Your task to perform on an android device: turn pop-ups on in chrome Image 0: 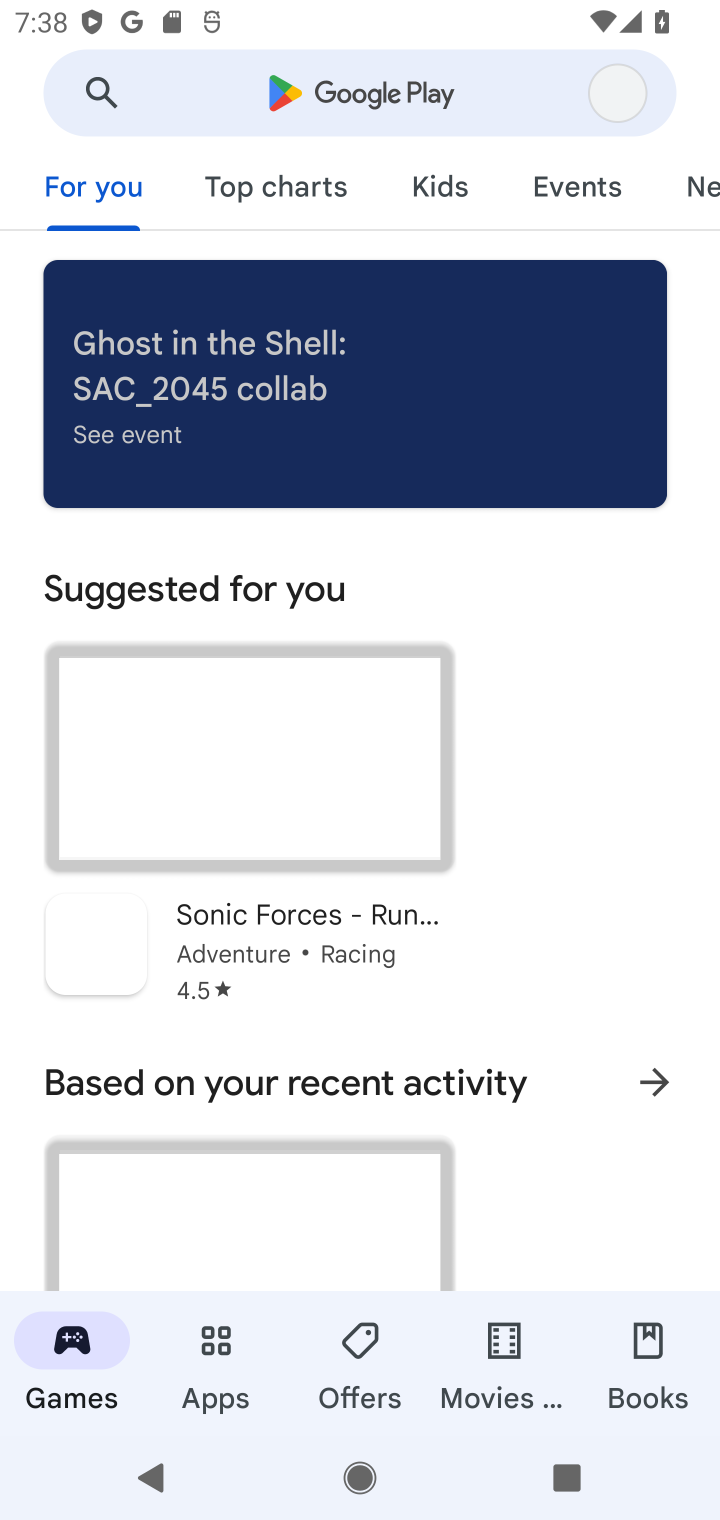
Step 0: press home button
Your task to perform on an android device: turn pop-ups on in chrome Image 1: 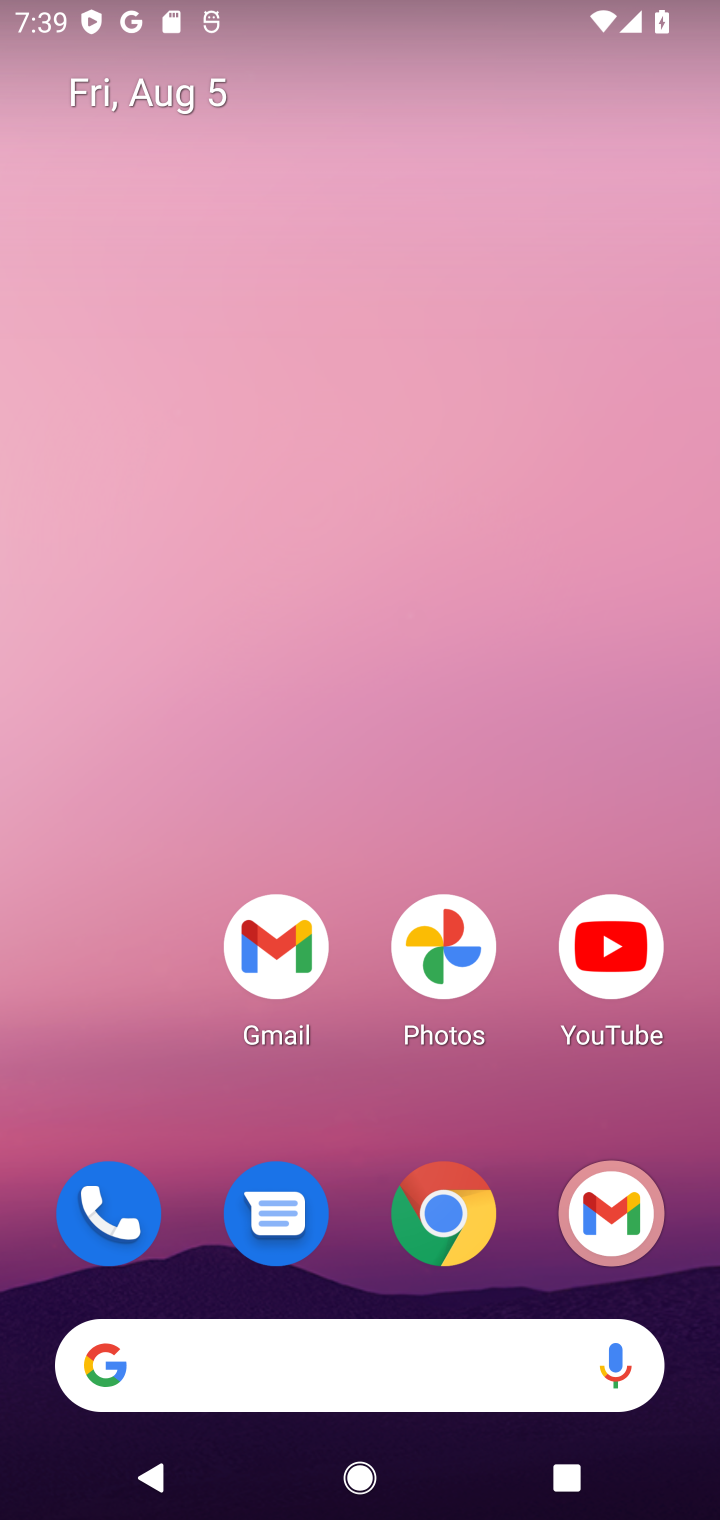
Step 1: drag from (353, 943) to (390, 326)
Your task to perform on an android device: turn pop-ups on in chrome Image 2: 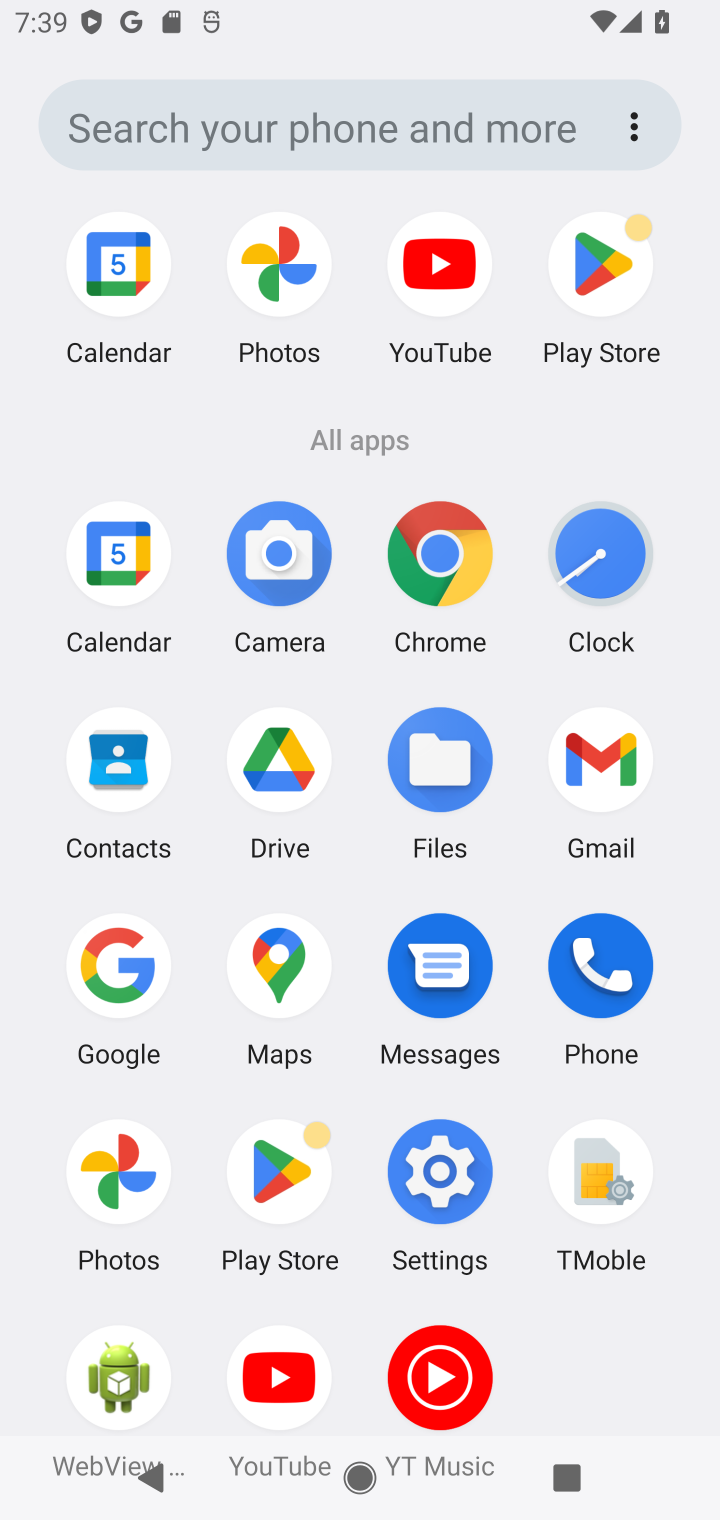
Step 2: click (418, 556)
Your task to perform on an android device: turn pop-ups on in chrome Image 3: 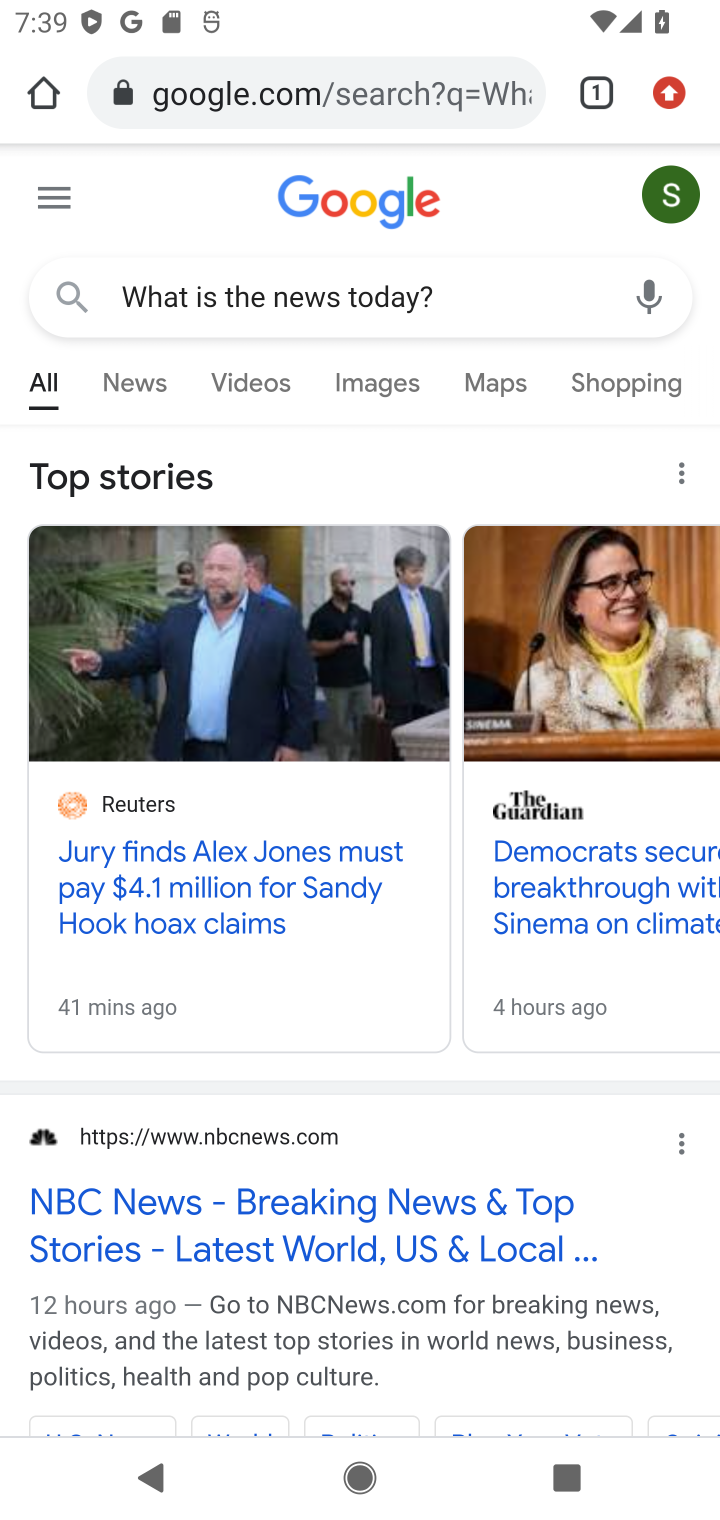
Step 3: click (679, 78)
Your task to perform on an android device: turn pop-ups on in chrome Image 4: 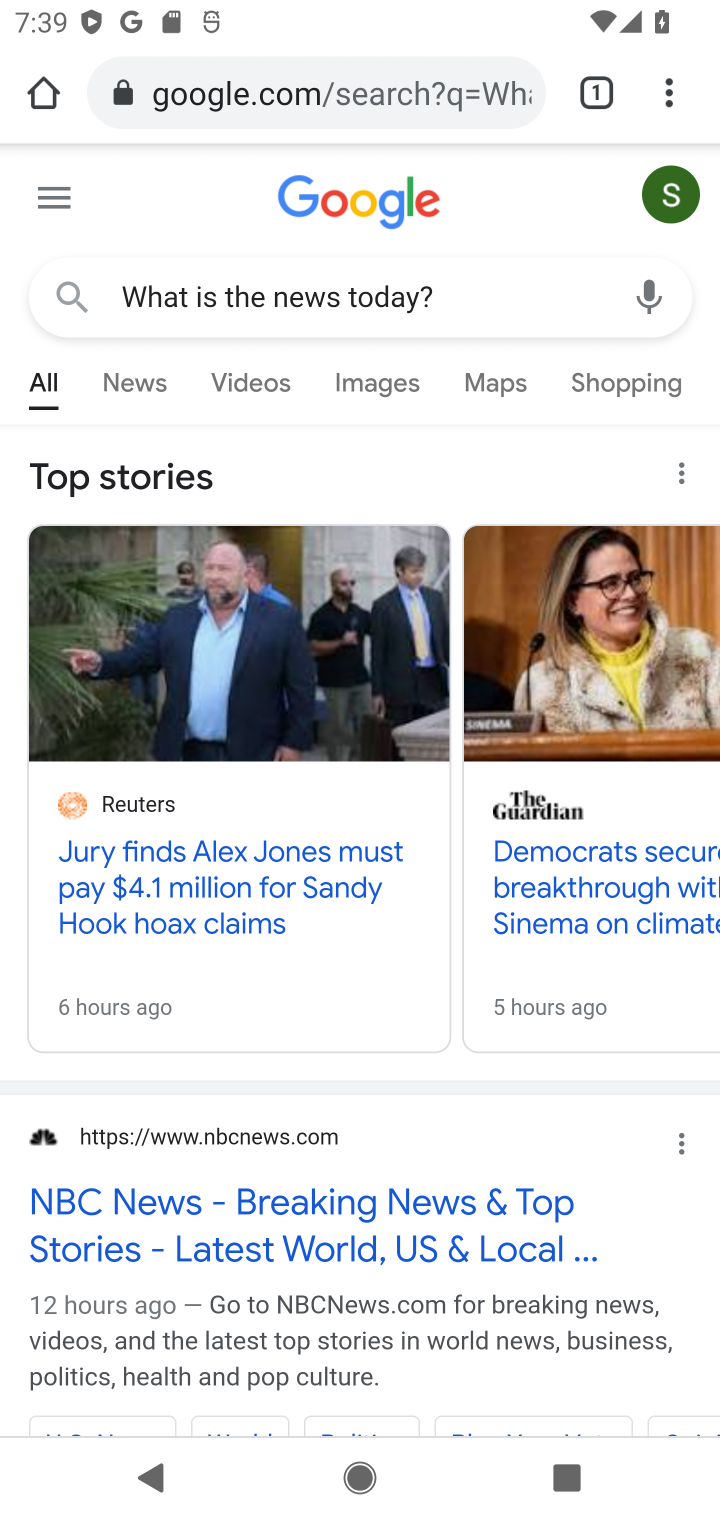
Step 4: click (689, 81)
Your task to perform on an android device: turn pop-ups on in chrome Image 5: 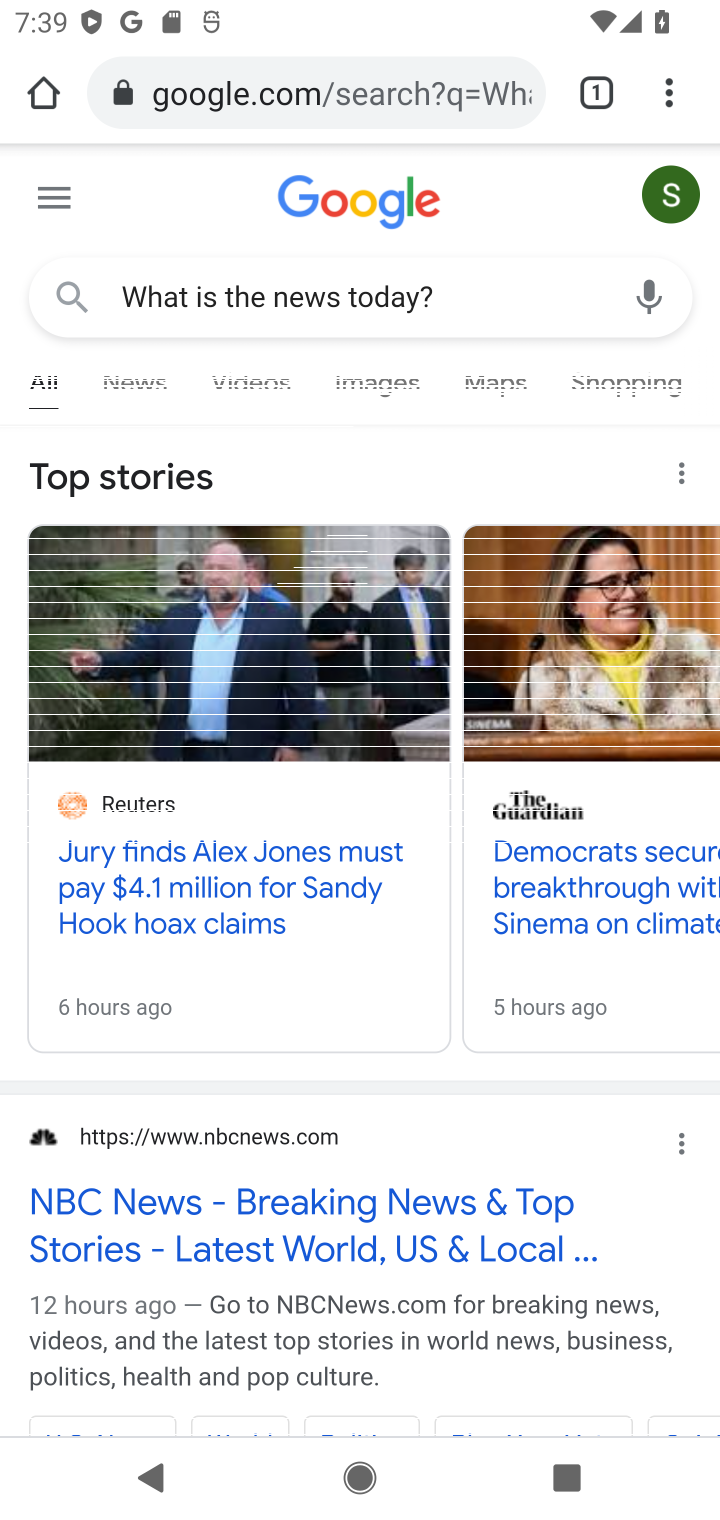
Step 5: click (662, 78)
Your task to perform on an android device: turn pop-ups on in chrome Image 6: 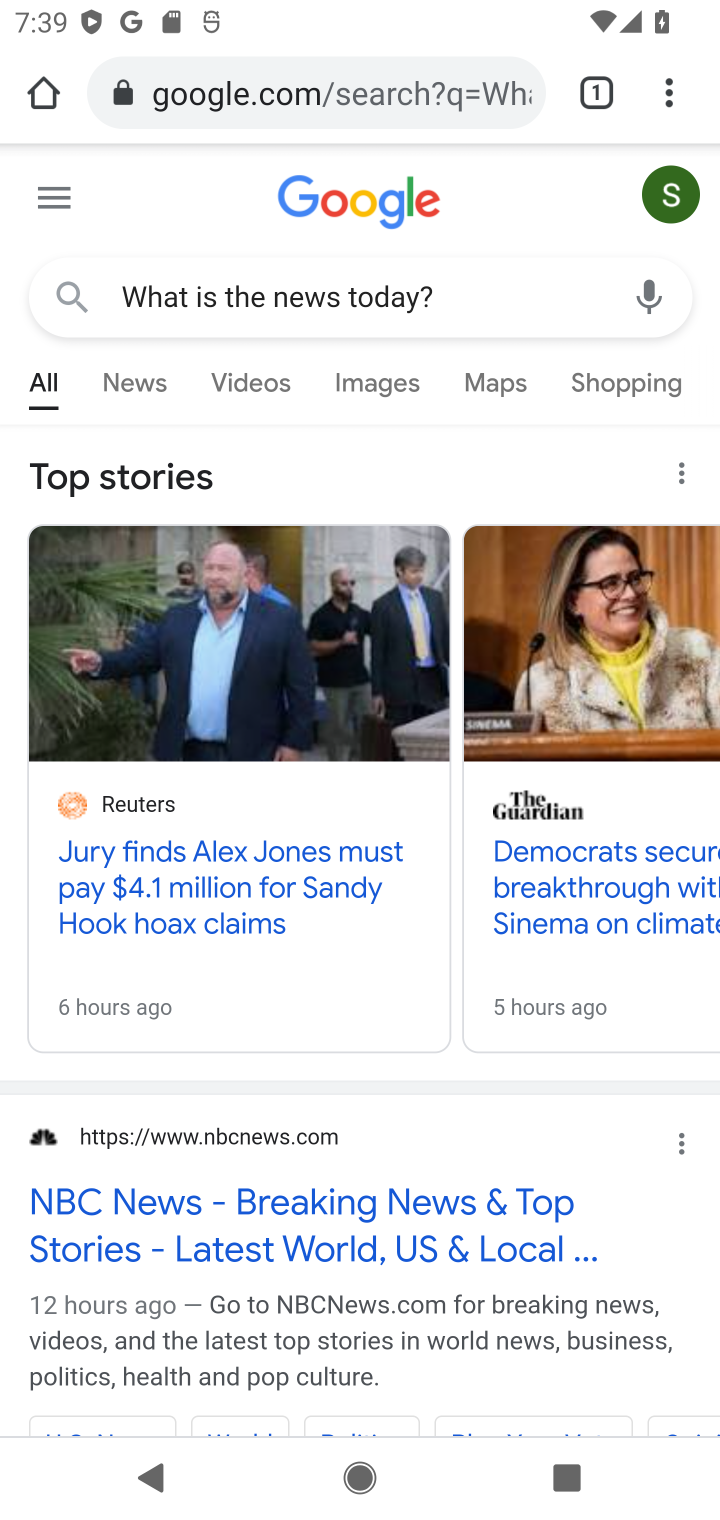
Step 6: click (673, 96)
Your task to perform on an android device: turn pop-ups on in chrome Image 7: 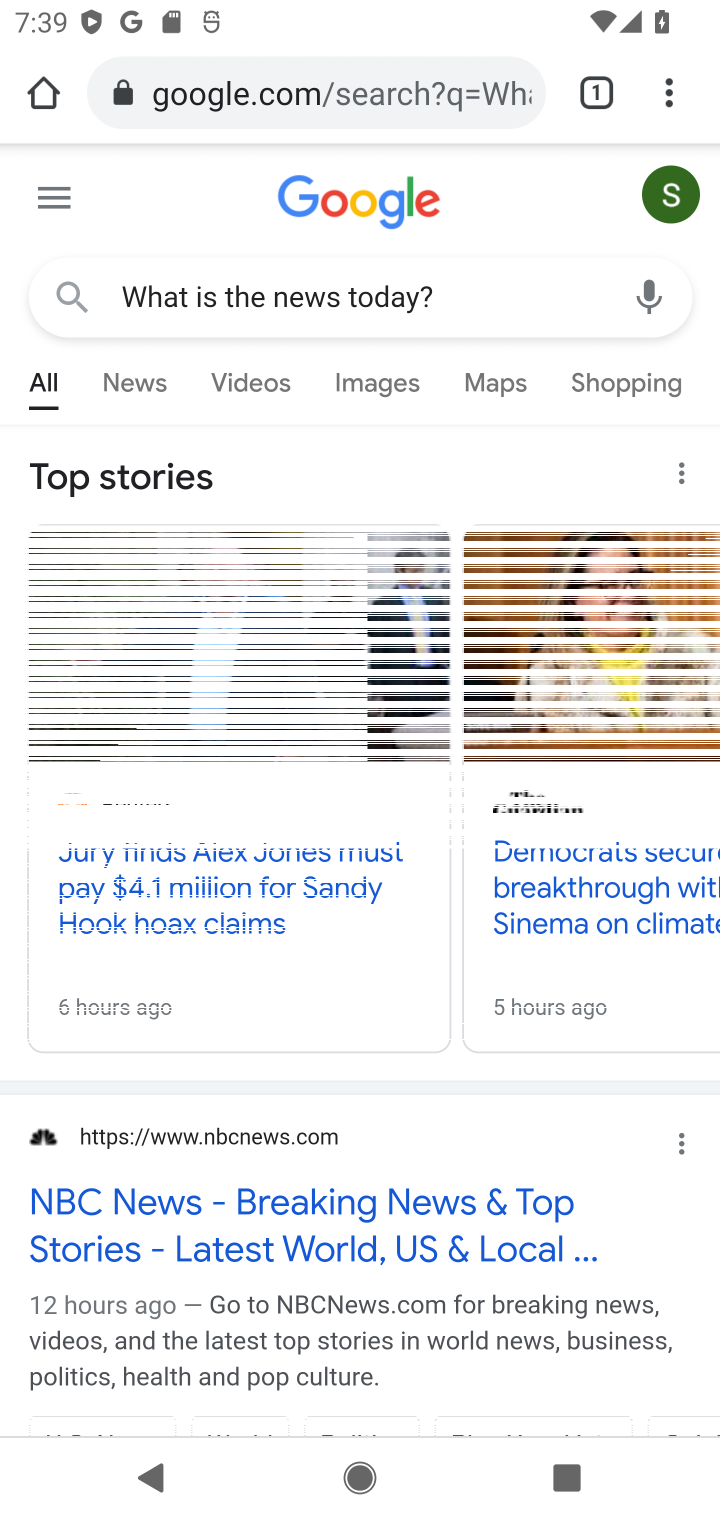
Step 7: click (702, 80)
Your task to perform on an android device: turn pop-ups on in chrome Image 8: 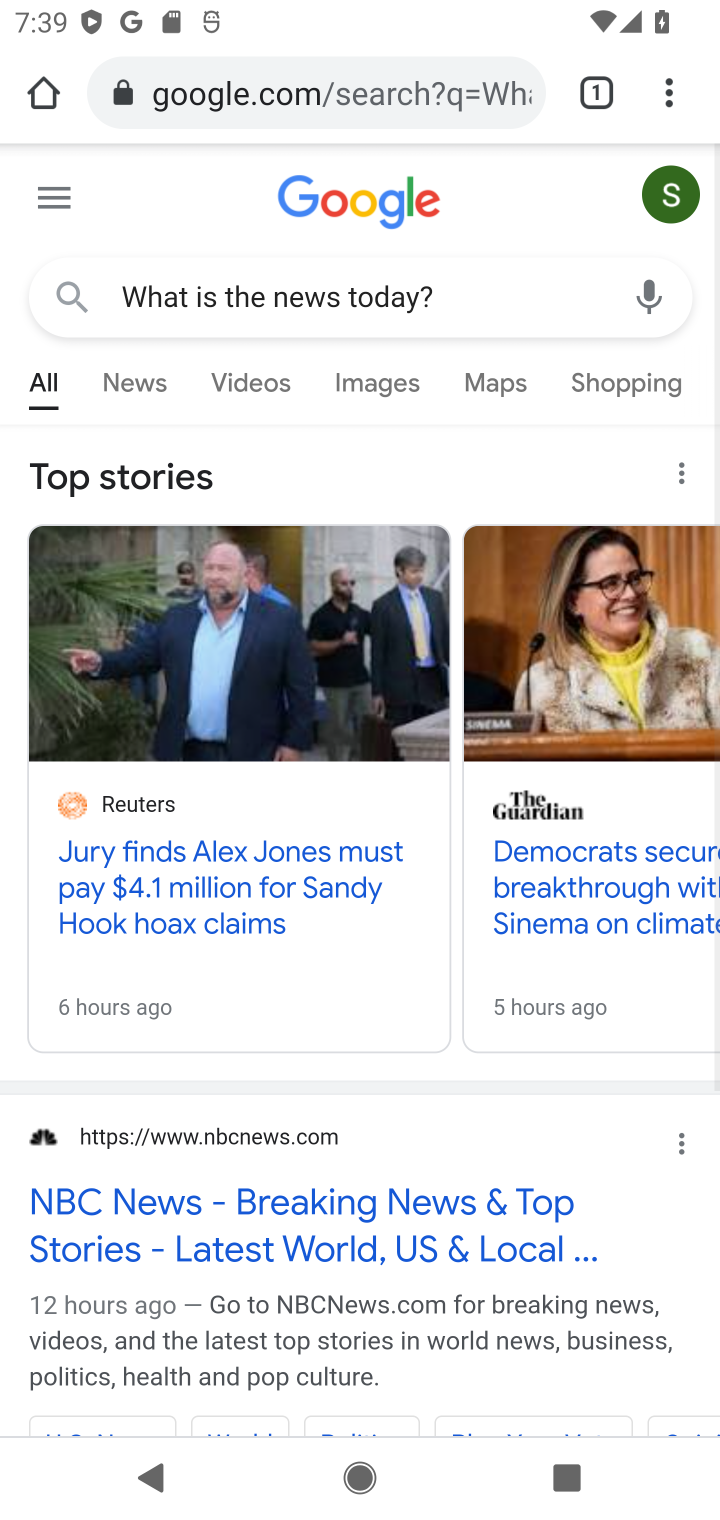
Step 8: click (694, 84)
Your task to perform on an android device: turn pop-ups on in chrome Image 9: 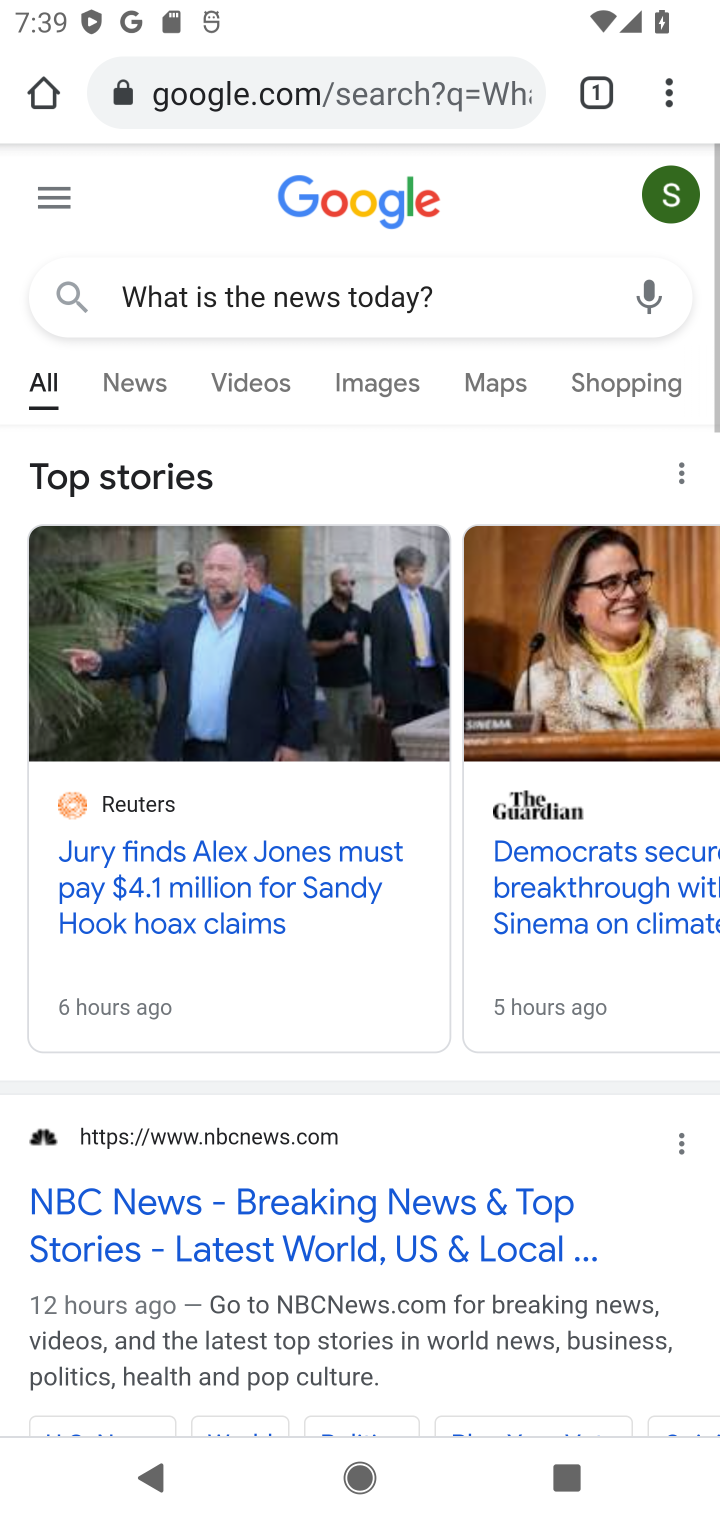
Step 9: click (679, 84)
Your task to perform on an android device: turn pop-ups on in chrome Image 10: 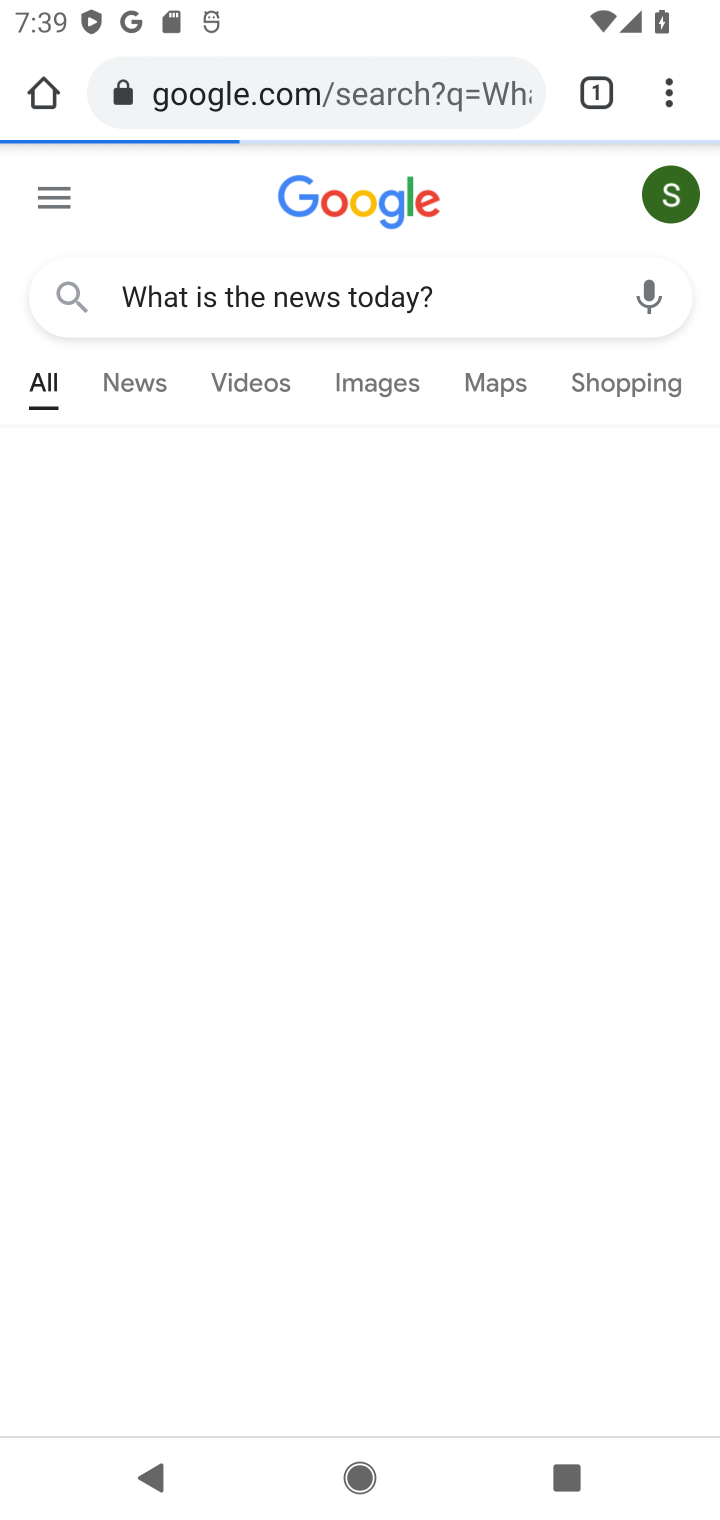
Step 10: click (632, 83)
Your task to perform on an android device: turn pop-ups on in chrome Image 11: 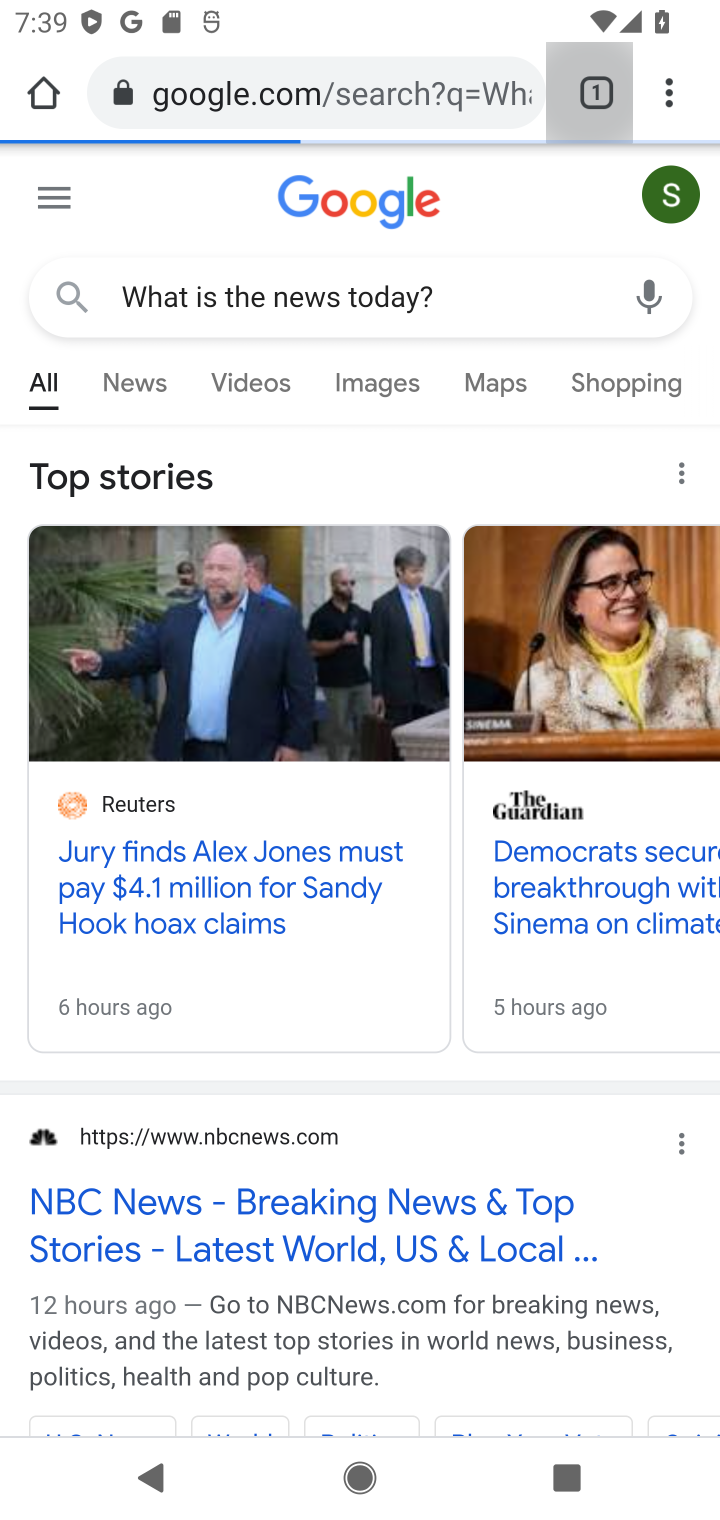
Step 11: click (653, 76)
Your task to perform on an android device: turn pop-ups on in chrome Image 12: 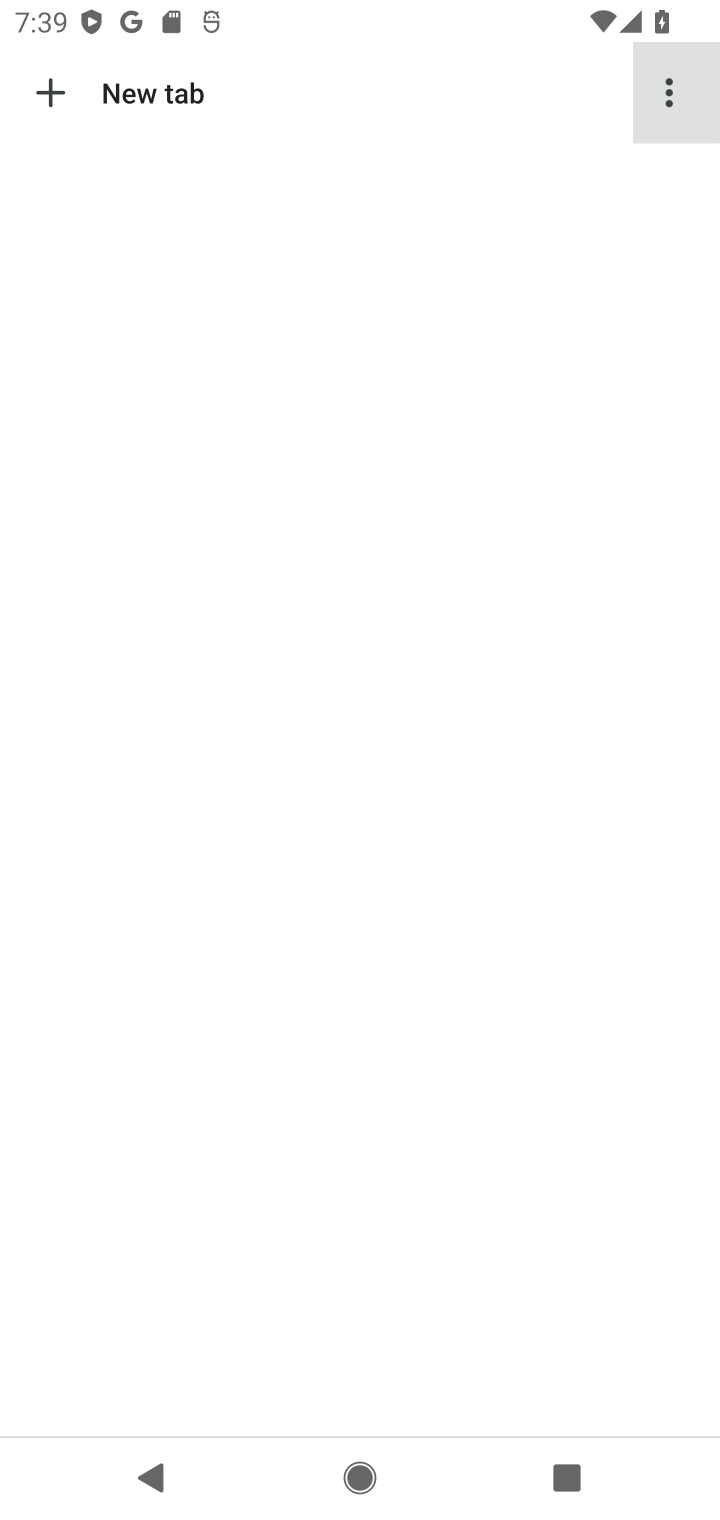
Step 12: click (664, 104)
Your task to perform on an android device: turn pop-ups on in chrome Image 13: 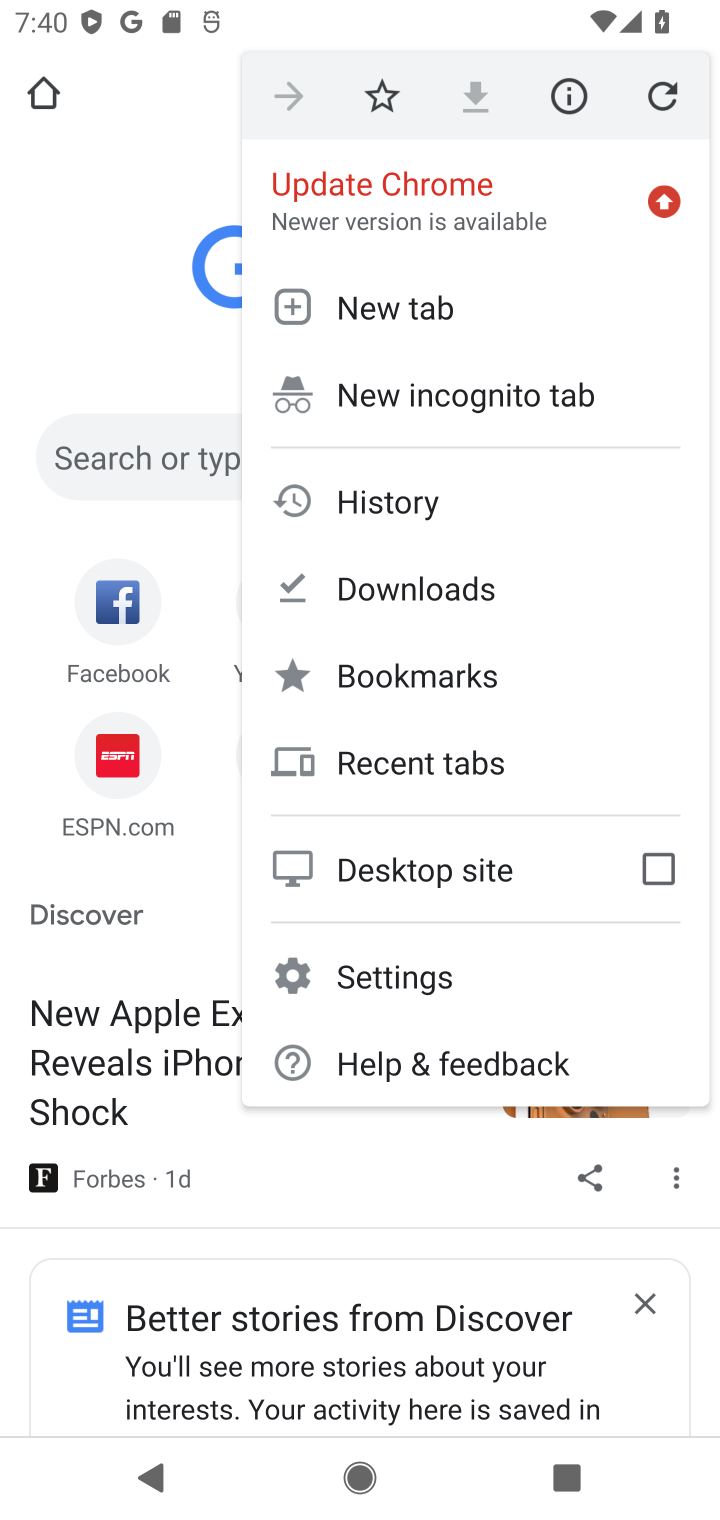
Step 13: click (415, 948)
Your task to perform on an android device: turn pop-ups on in chrome Image 14: 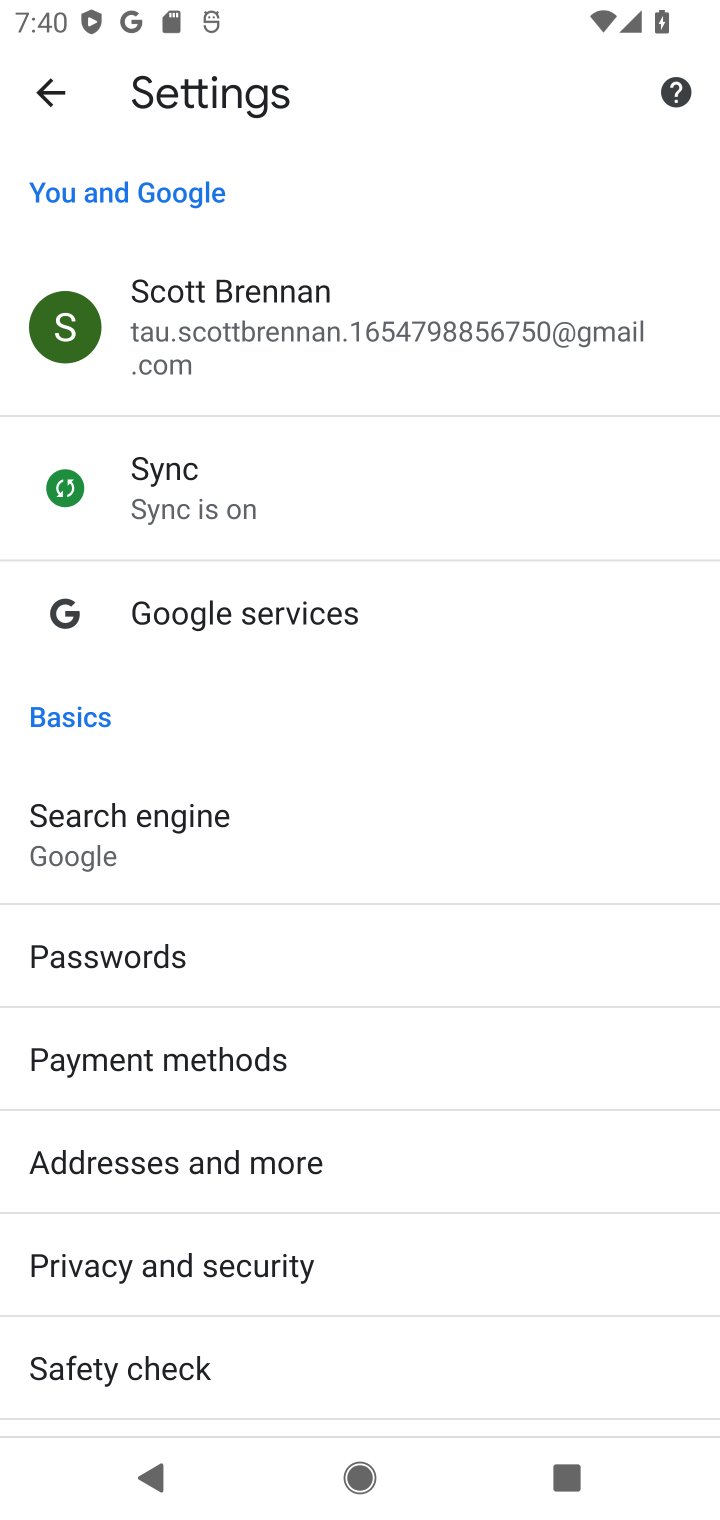
Step 14: drag from (414, 1239) to (491, 263)
Your task to perform on an android device: turn pop-ups on in chrome Image 15: 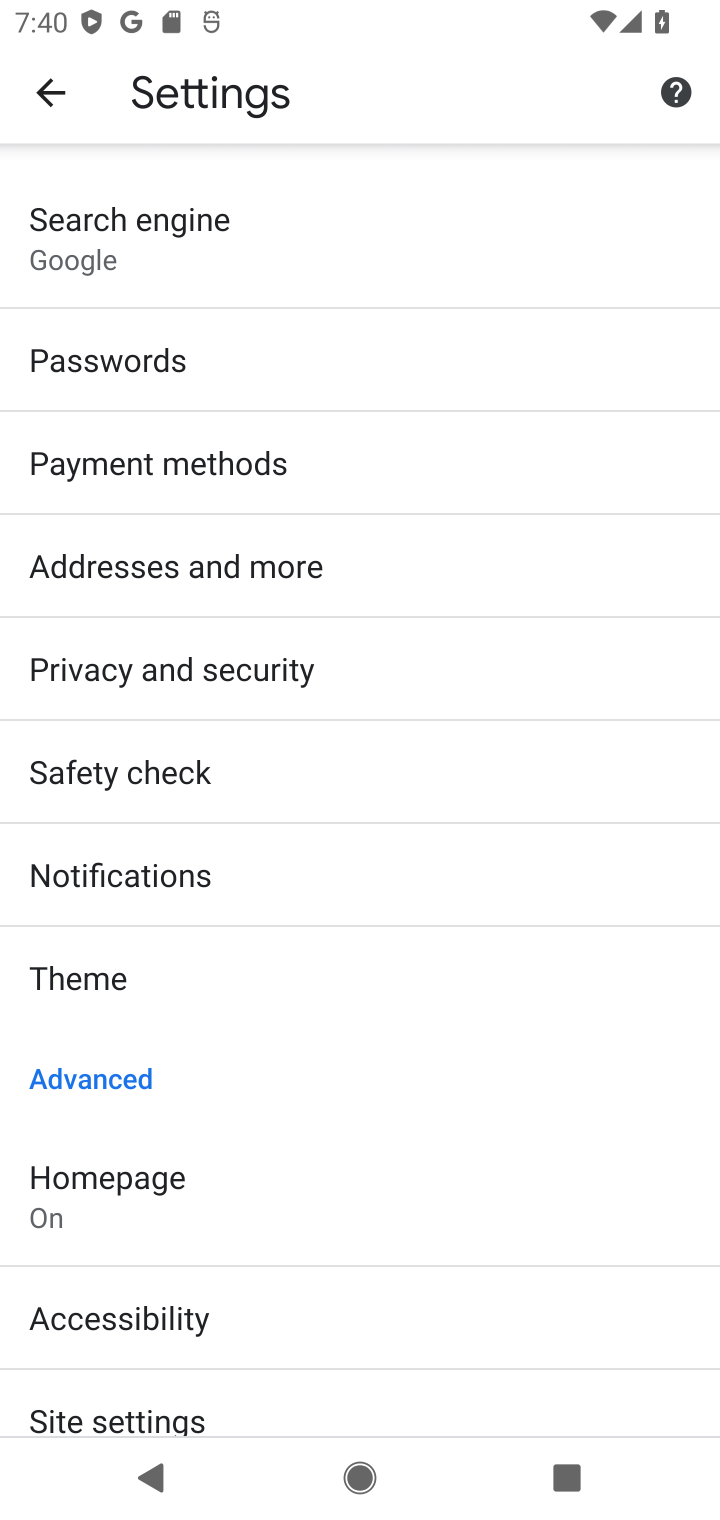
Step 15: drag from (321, 1361) to (394, 439)
Your task to perform on an android device: turn pop-ups on in chrome Image 16: 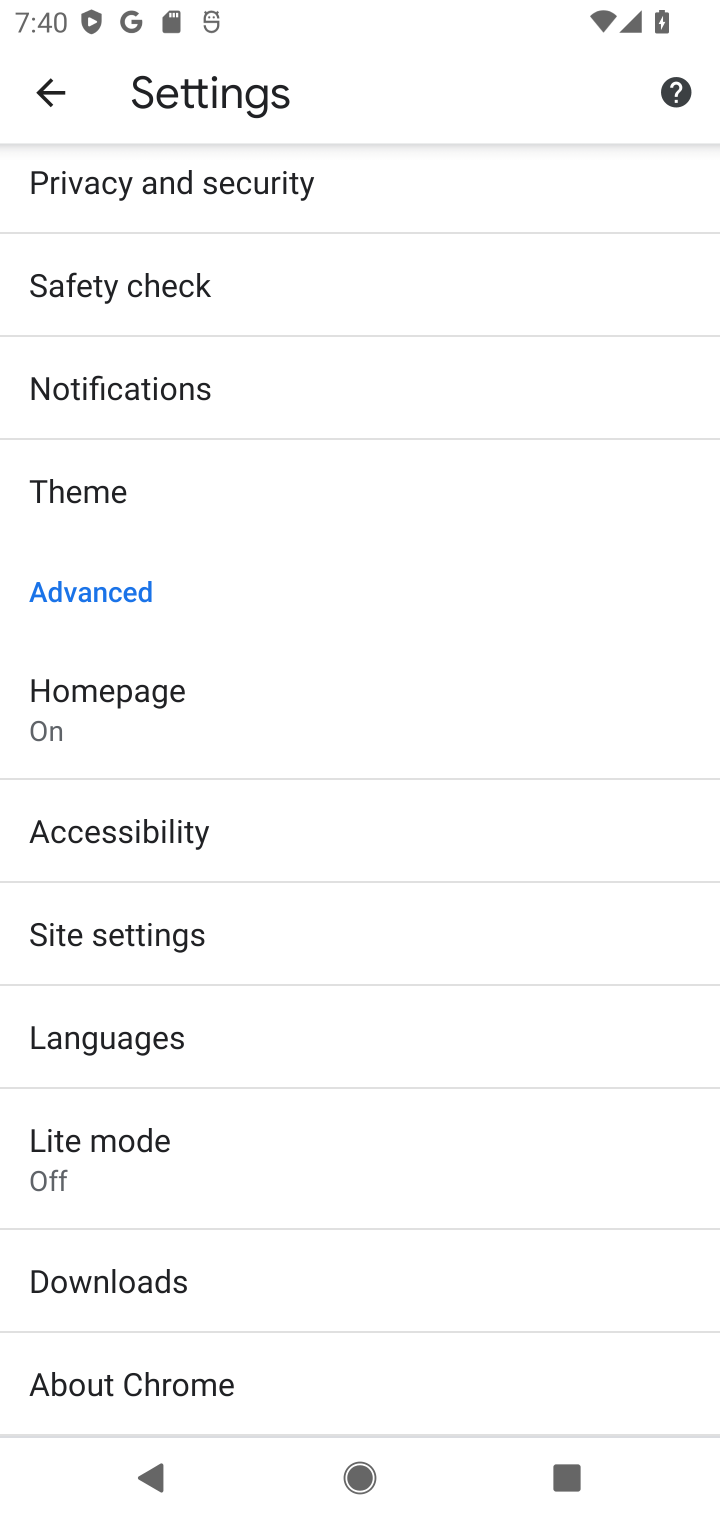
Step 16: click (216, 923)
Your task to perform on an android device: turn pop-ups on in chrome Image 17: 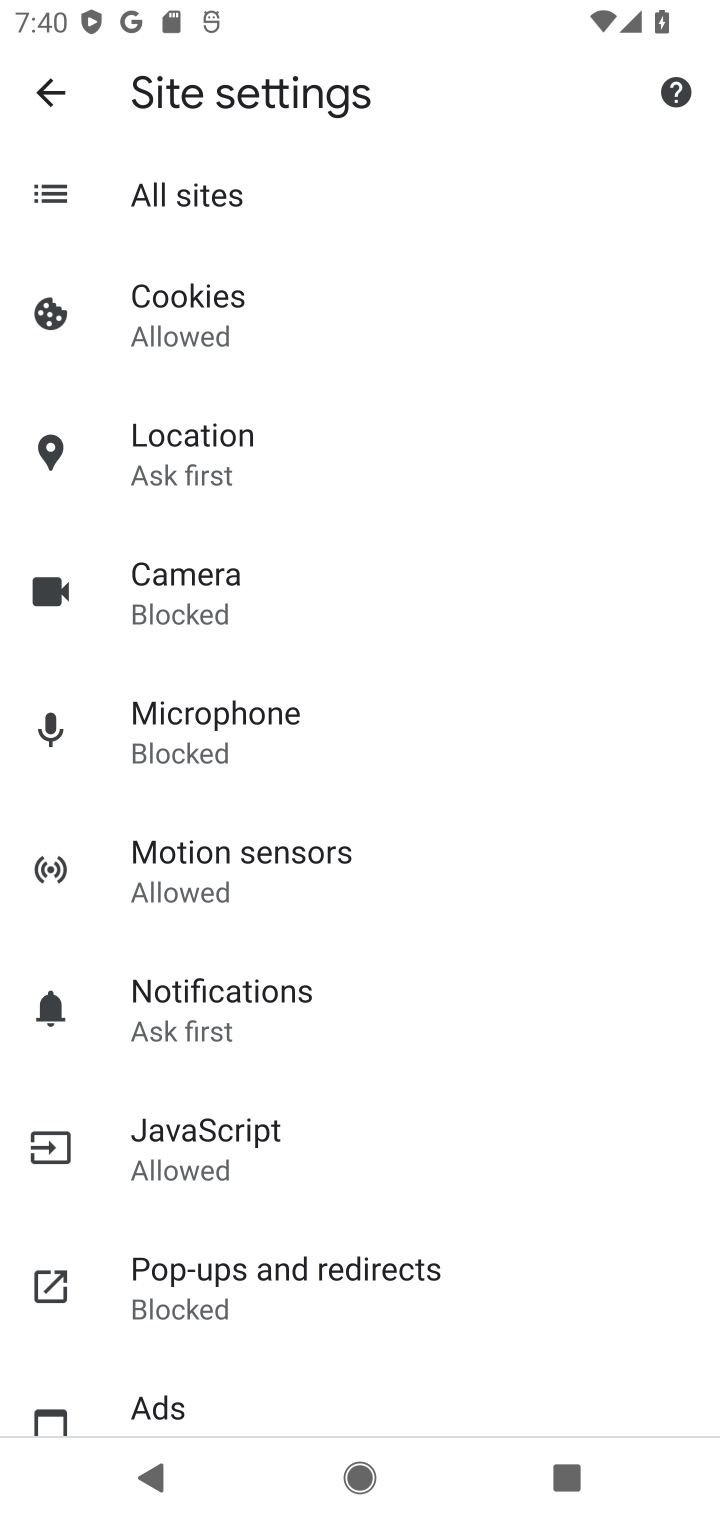
Step 17: click (365, 1258)
Your task to perform on an android device: turn pop-ups on in chrome Image 18: 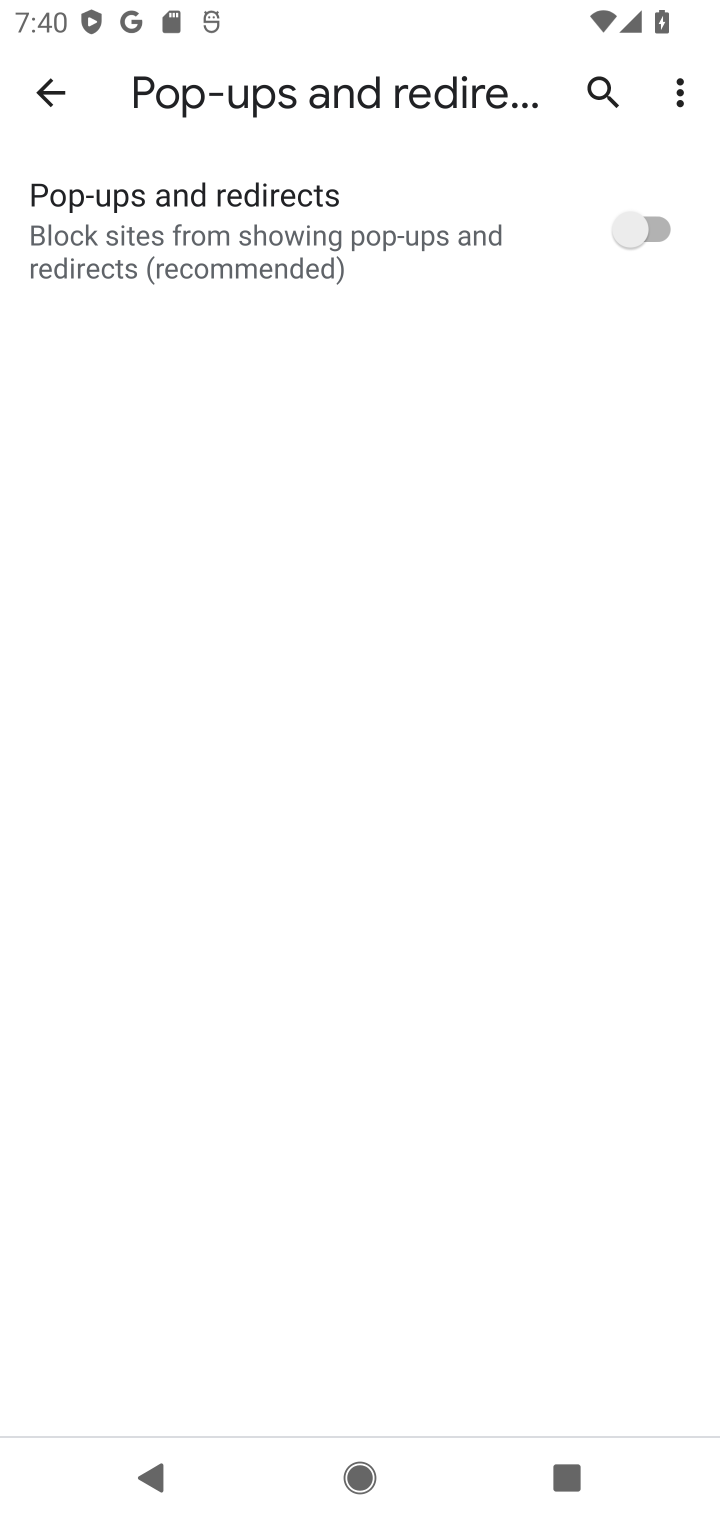
Step 18: click (651, 218)
Your task to perform on an android device: turn pop-ups on in chrome Image 19: 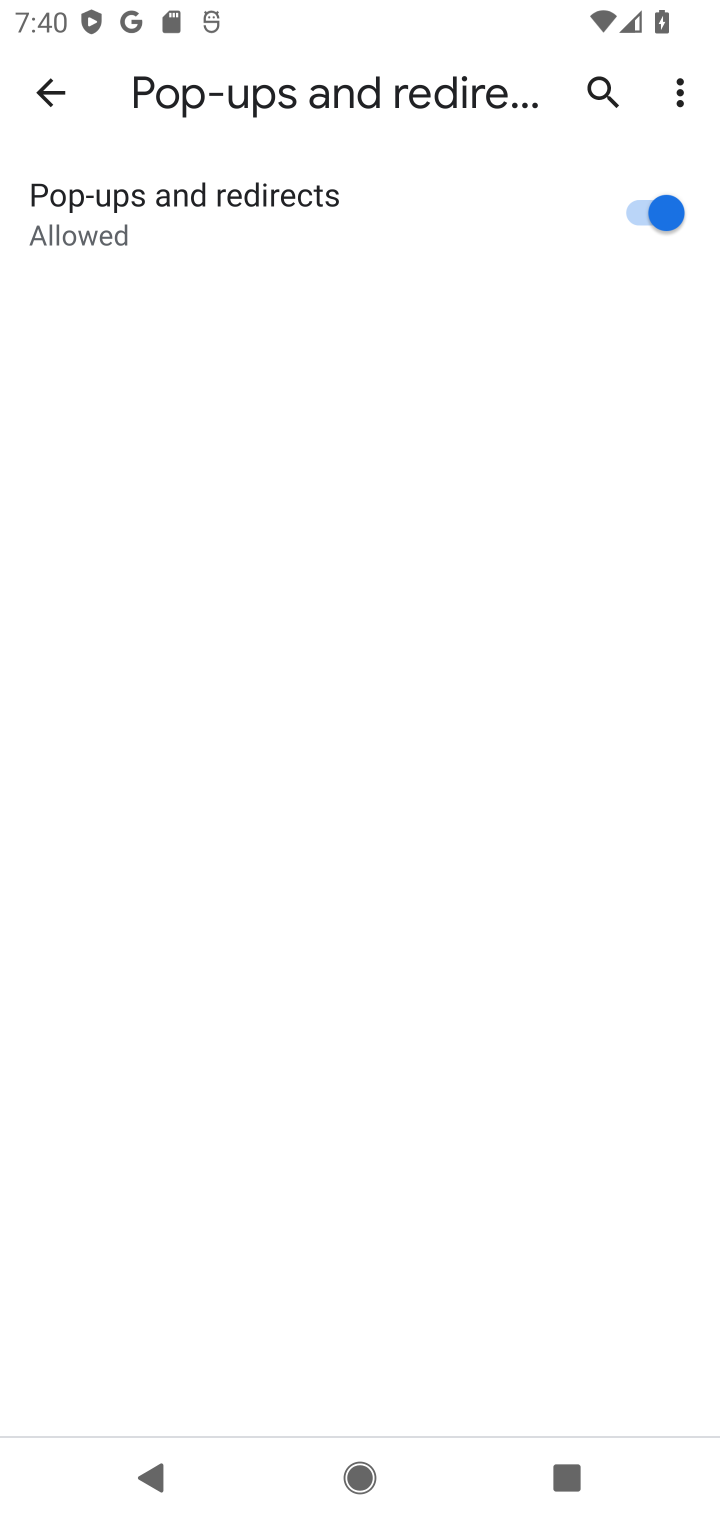
Step 19: task complete